Your task to perform on an android device: Go to Amazon Image 0: 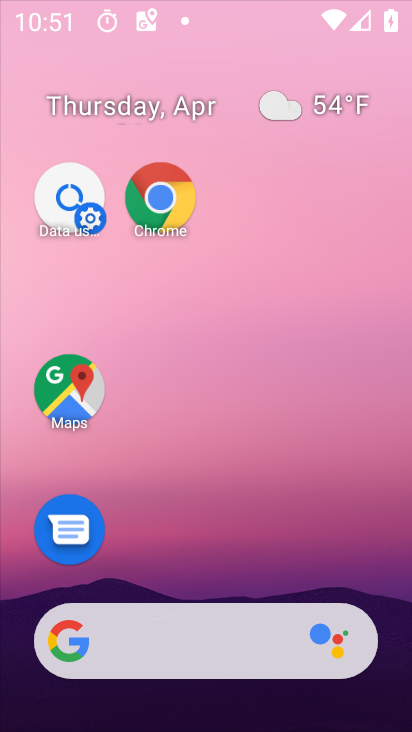
Step 0: click (242, 496)
Your task to perform on an android device: Go to Amazon Image 1: 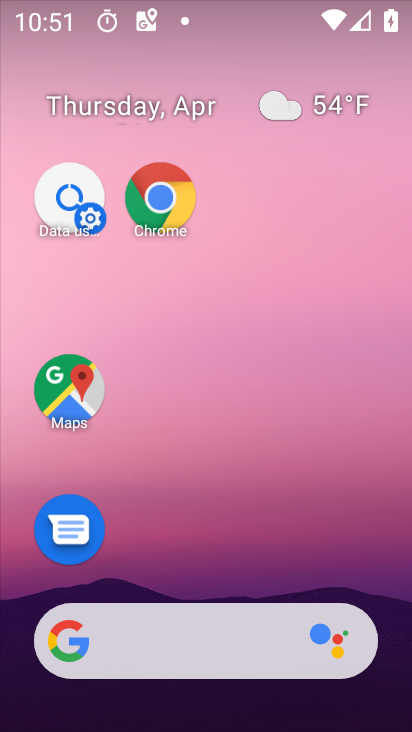
Step 1: drag from (211, 595) to (201, 2)
Your task to perform on an android device: Go to Amazon Image 2: 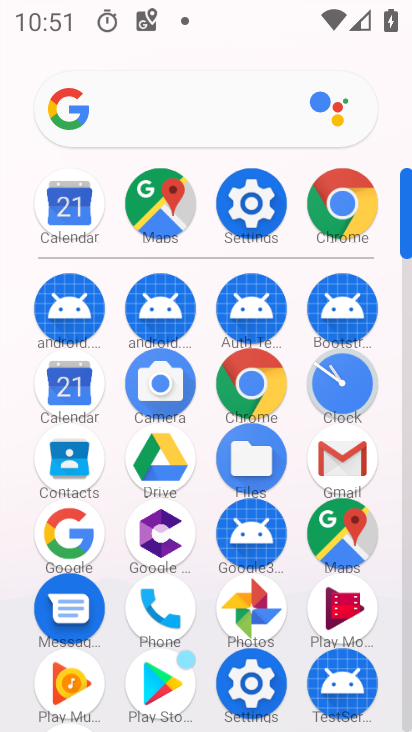
Step 2: click (252, 371)
Your task to perform on an android device: Go to Amazon Image 3: 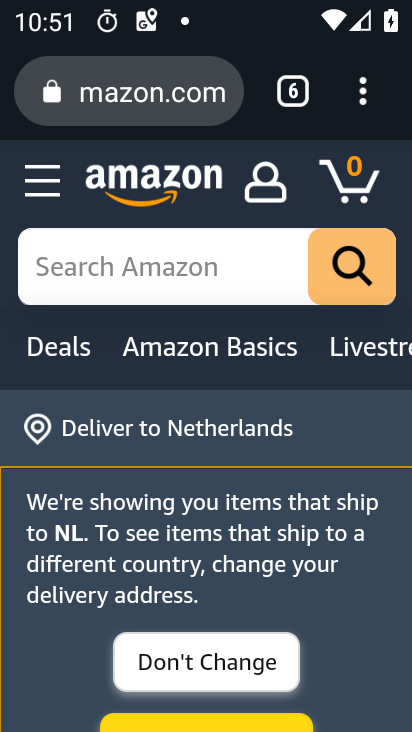
Step 3: task complete